Your task to perform on an android device: open app "Google Chat" (install if not already installed) Image 0: 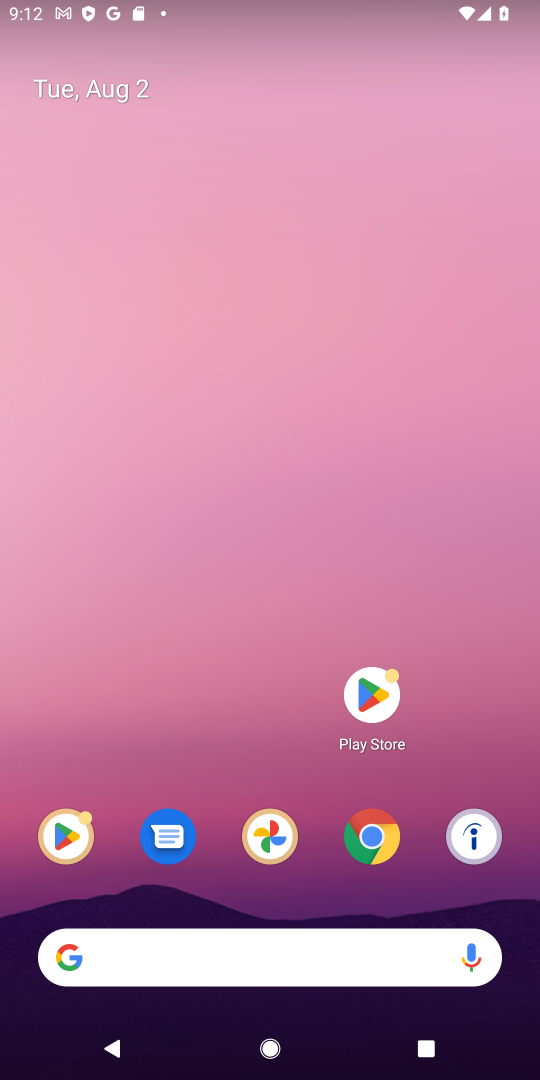
Step 0: click (268, 356)
Your task to perform on an android device: open app "Google Chat" (install if not already installed) Image 1: 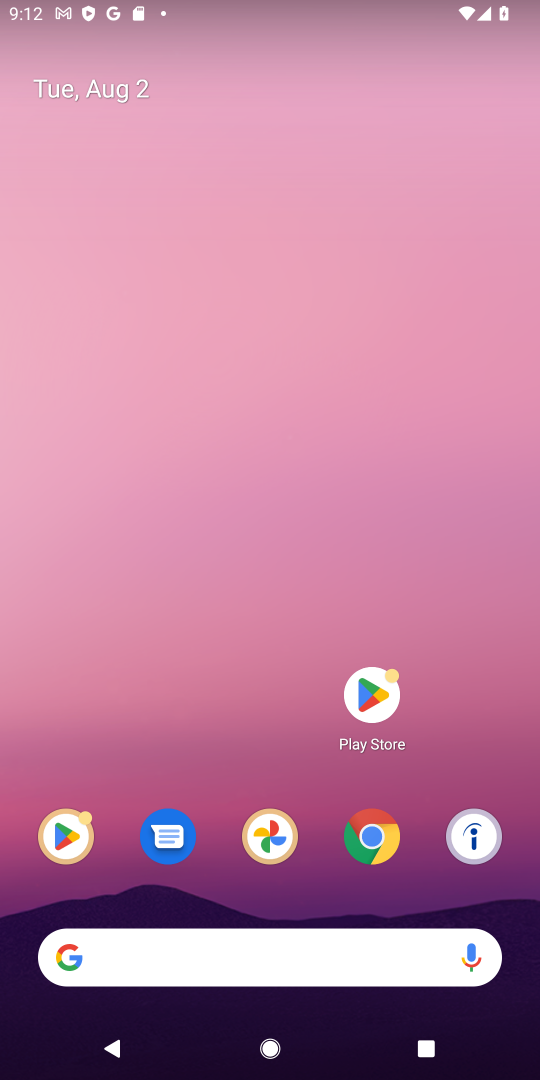
Step 1: drag from (325, 841) to (317, 540)
Your task to perform on an android device: open app "Google Chat" (install if not already installed) Image 2: 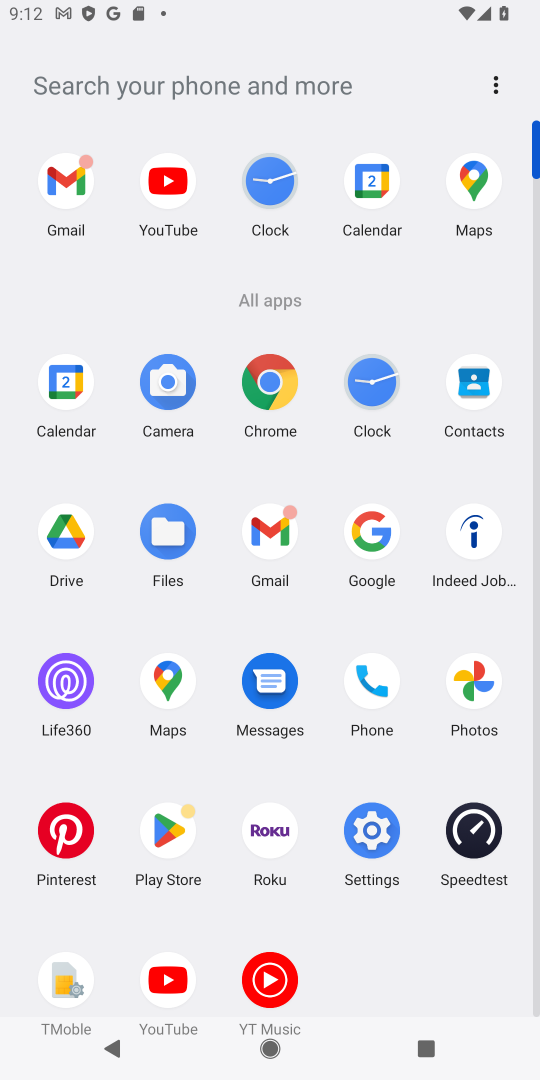
Step 2: click (156, 836)
Your task to perform on an android device: open app "Google Chat" (install if not already installed) Image 3: 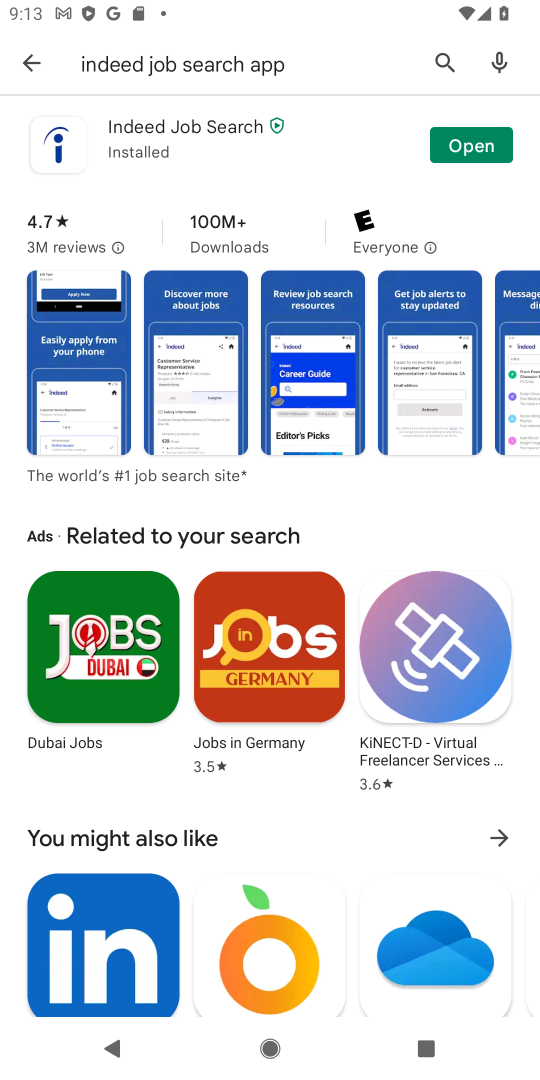
Step 3: click (431, 51)
Your task to perform on an android device: open app "Google Chat" (install if not already installed) Image 4: 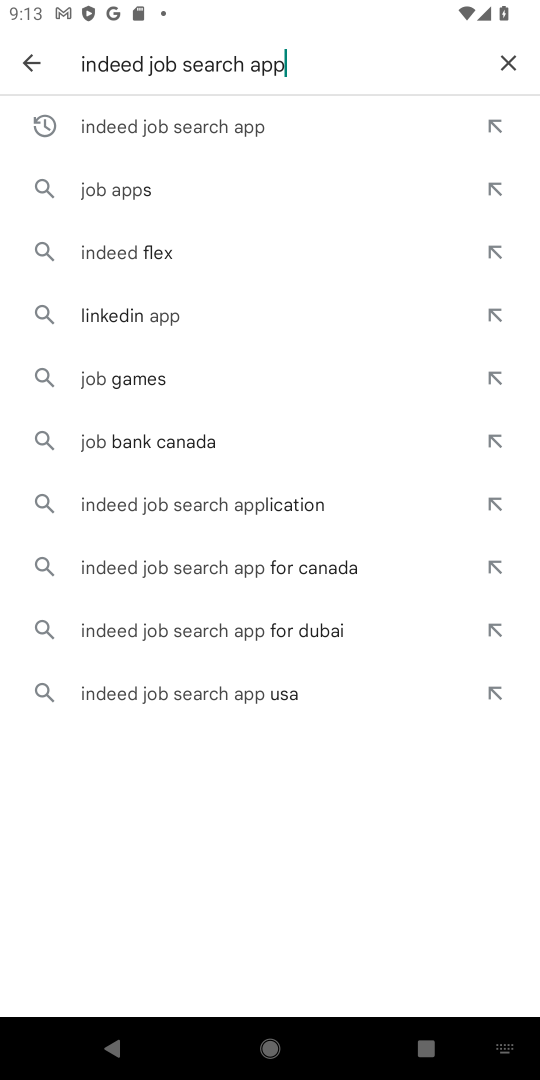
Step 4: click (495, 54)
Your task to perform on an android device: open app "Google Chat" (install if not already installed) Image 5: 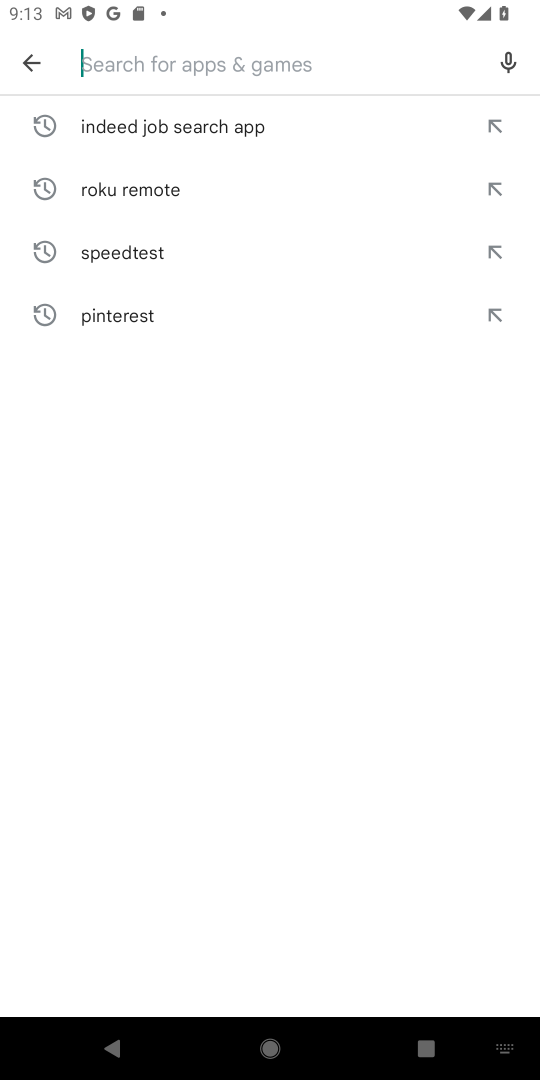
Step 5: type "goole chat"
Your task to perform on an android device: open app "Google Chat" (install if not already installed) Image 6: 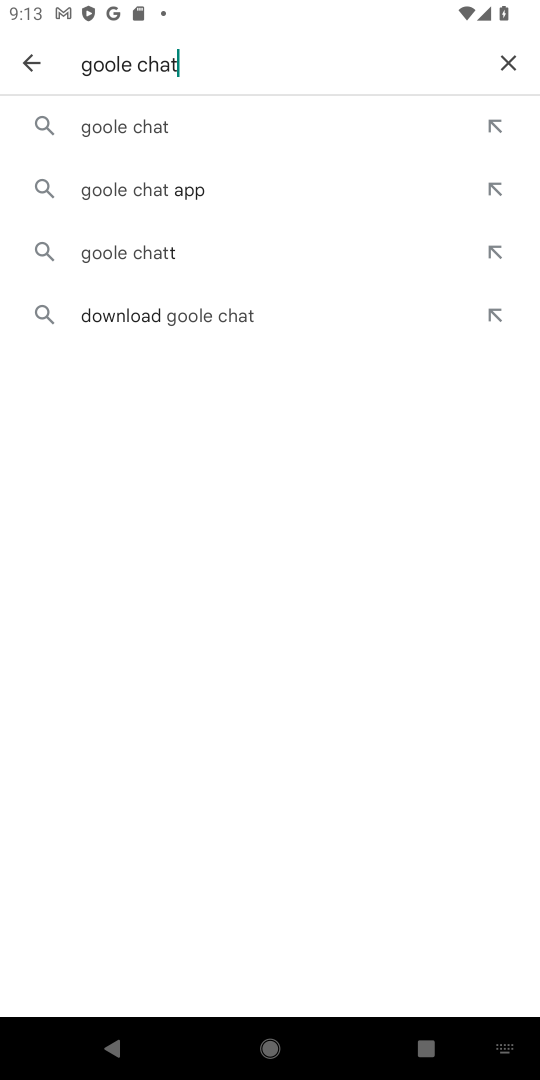
Step 6: click (139, 128)
Your task to perform on an android device: open app "Google Chat" (install if not already installed) Image 7: 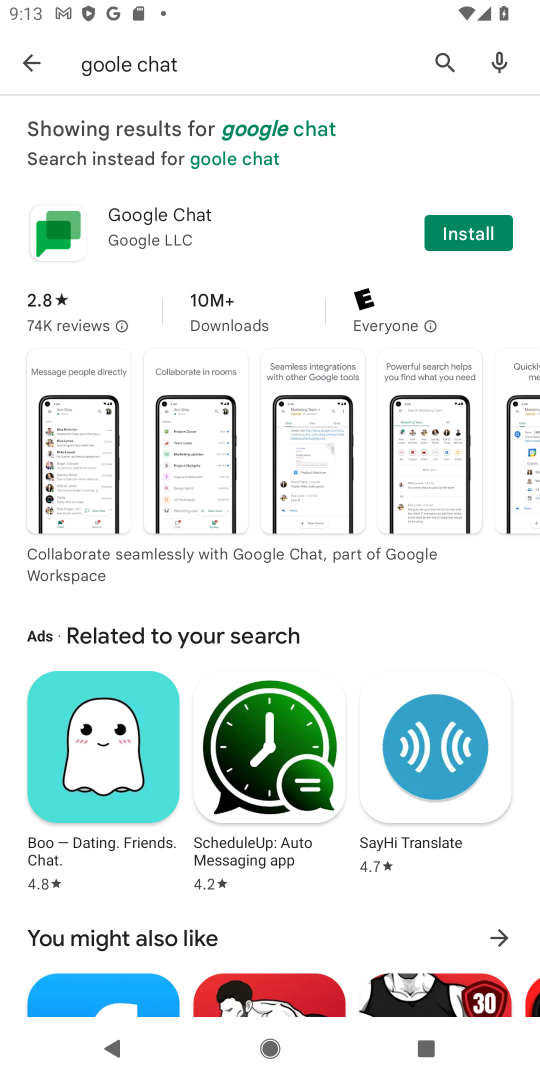
Step 7: click (438, 227)
Your task to perform on an android device: open app "Google Chat" (install if not already installed) Image 8: 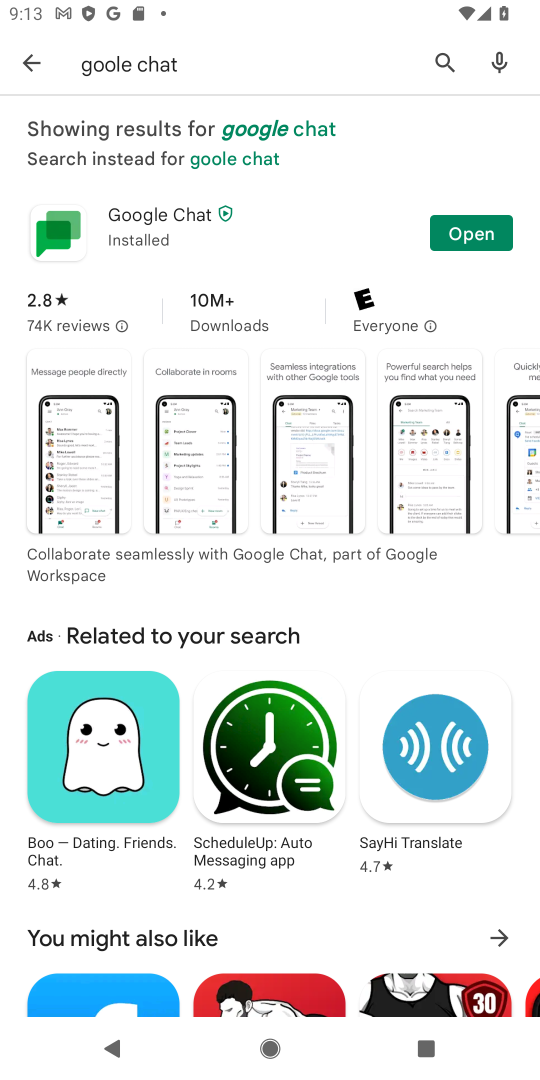
Step 8: click (467, 231)
Your task to perform on an android device: open app "Google Chat" (install if not already installed) Image 9: 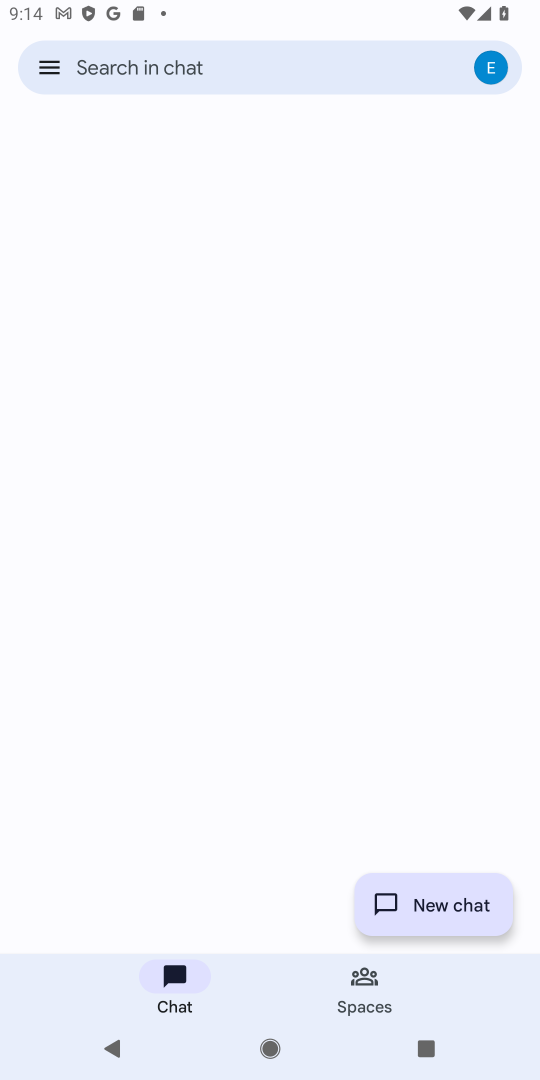
Step 9: press back button
Your task to perform on an android device: open app "Google Chat" (install if not already installed) Image 10: 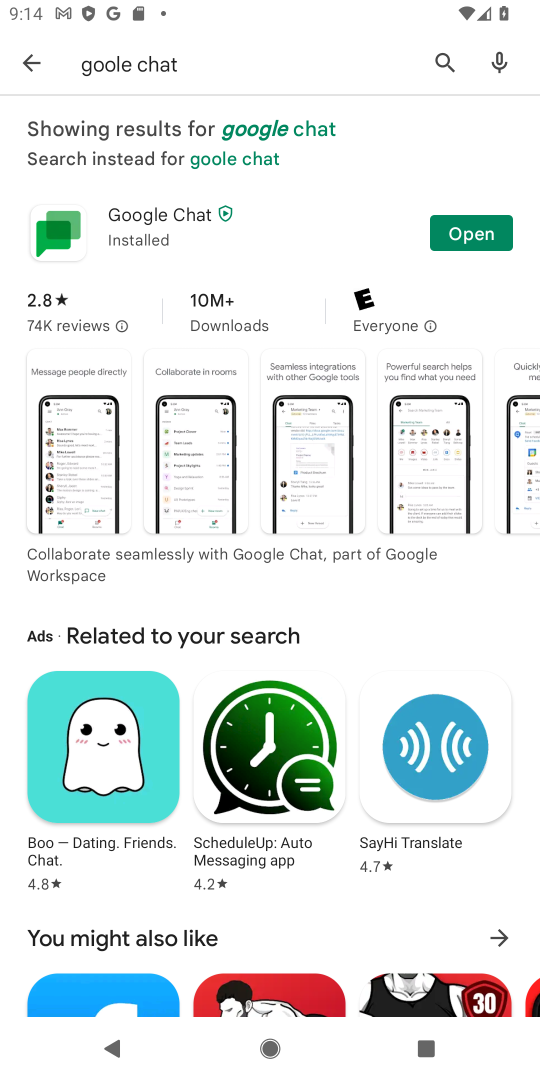
Step 10: click (460, 214)
Your task to perform on an android device: open app "Google Chat" (install if not already installed) Image 11: 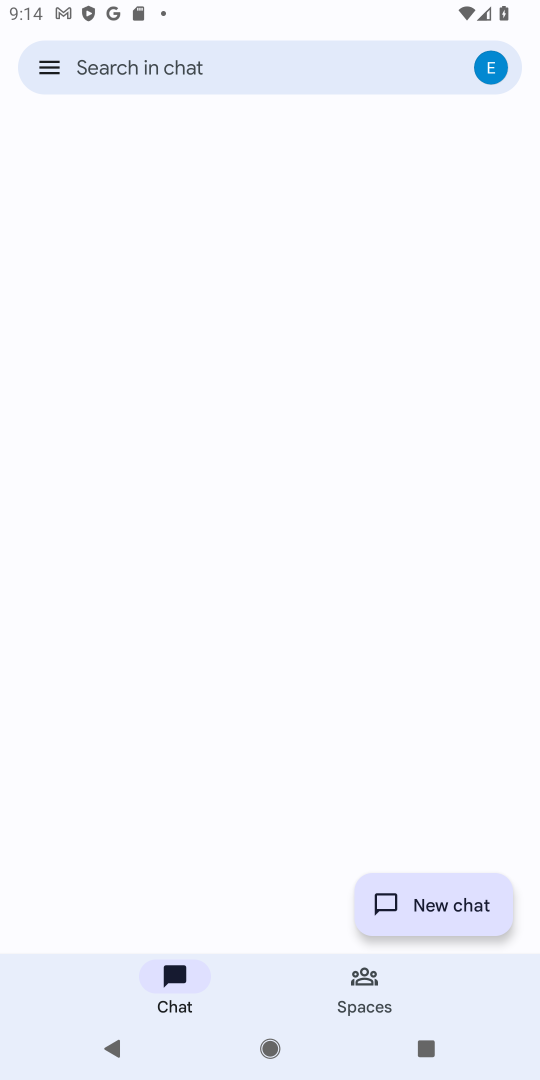
Step 11: task complete